Your task to perform on an android device: Open display settings Image 0: 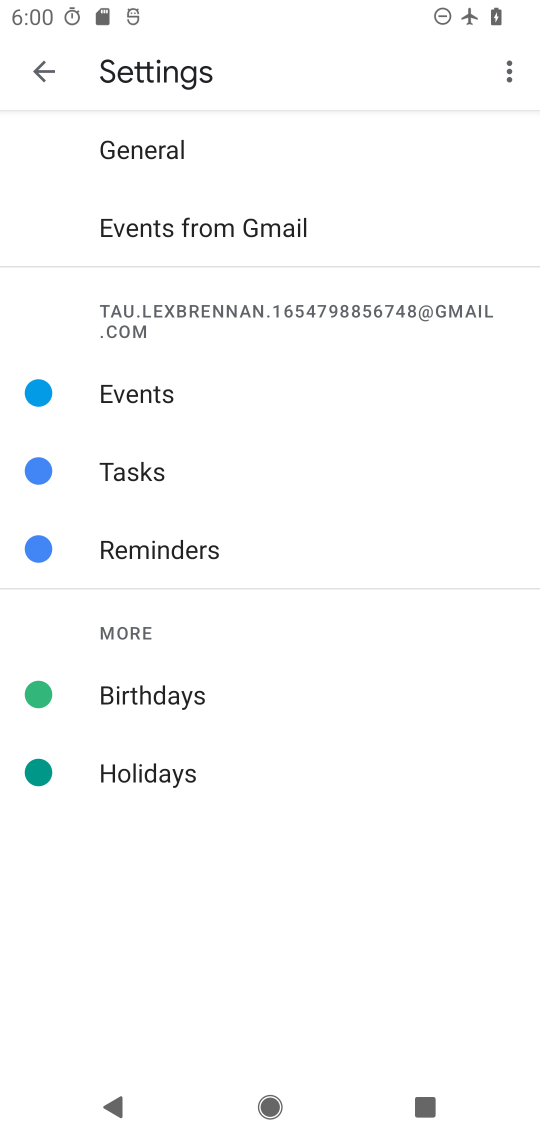
Step 0: press home button
Your task to perform on an android device: Open display settings Image 1: 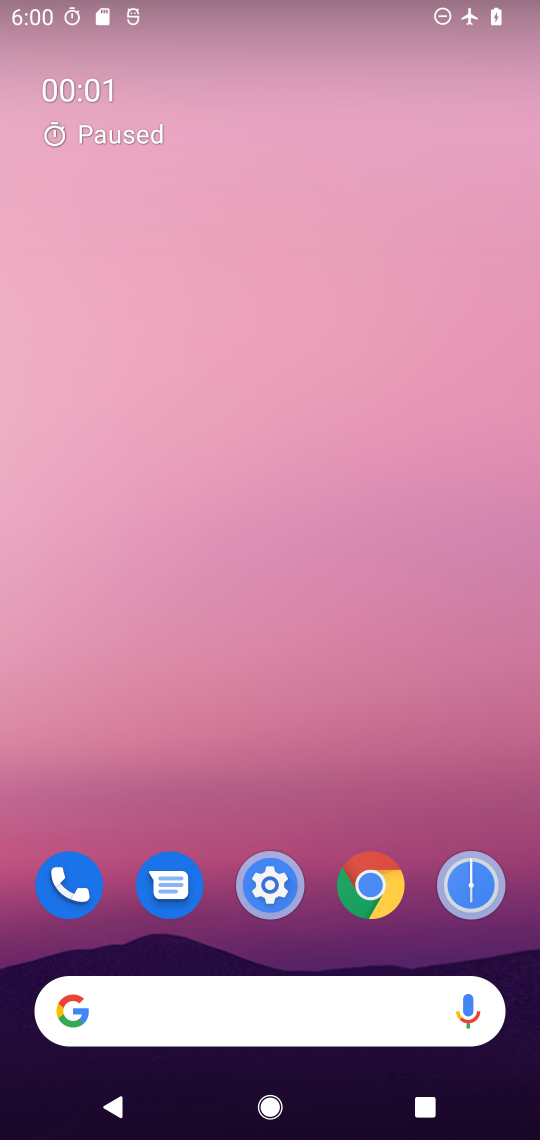
Step 1: drag from (277, 914) to (304, 270)
Your task to perform on an android device: Open display settings Image 2: 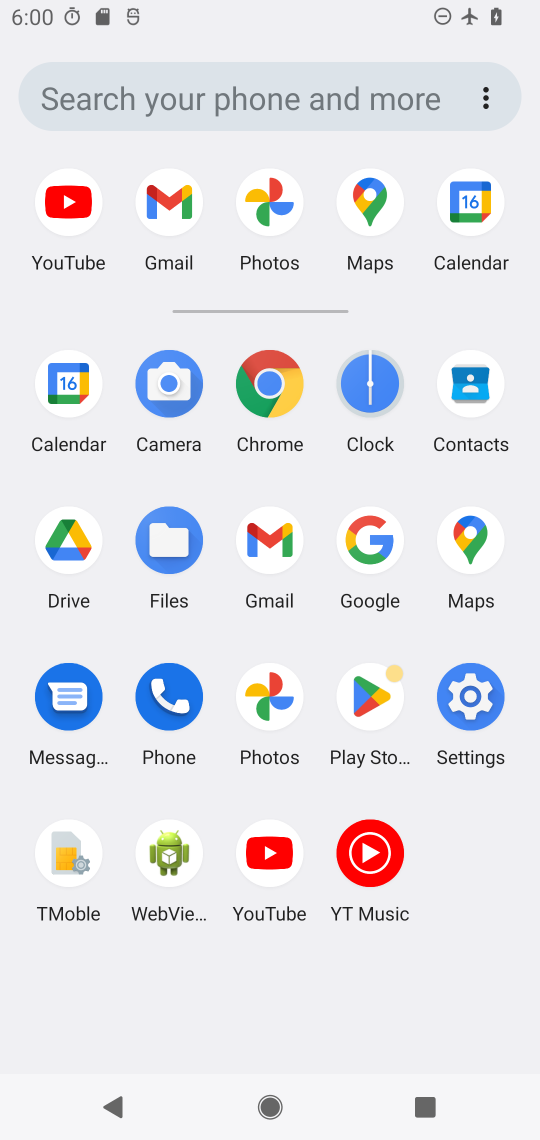
Step 2: click (458, 697)
Your task to perform on an android device: Open display settings Image 3: 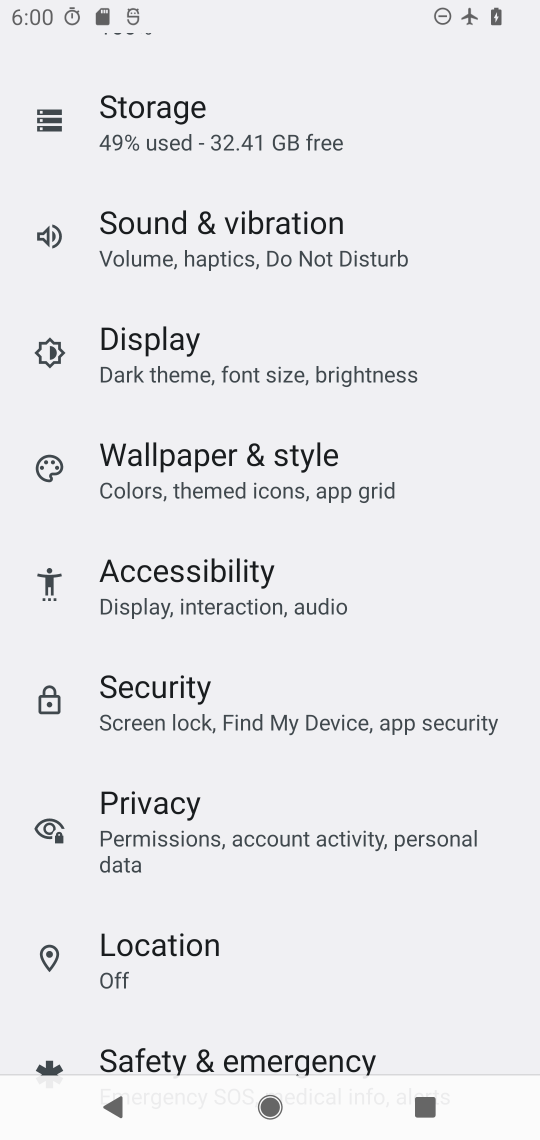
Step 3: click (159, 358)
Your task to perform on an android device: Open display settings Image 4: 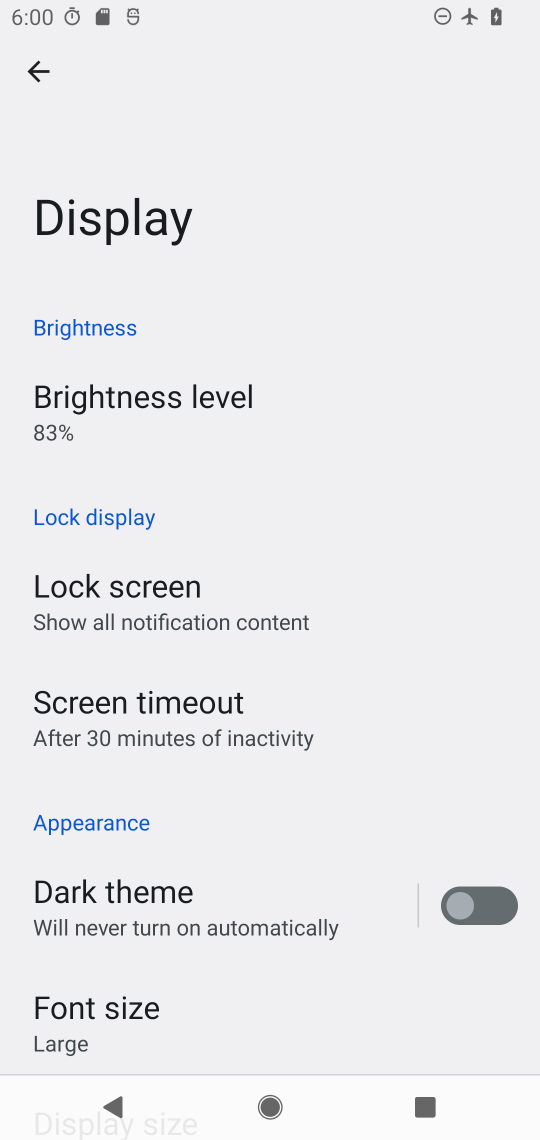
Step 4: task complete